Your task to perform on an android device: Open battery settings Image 0: 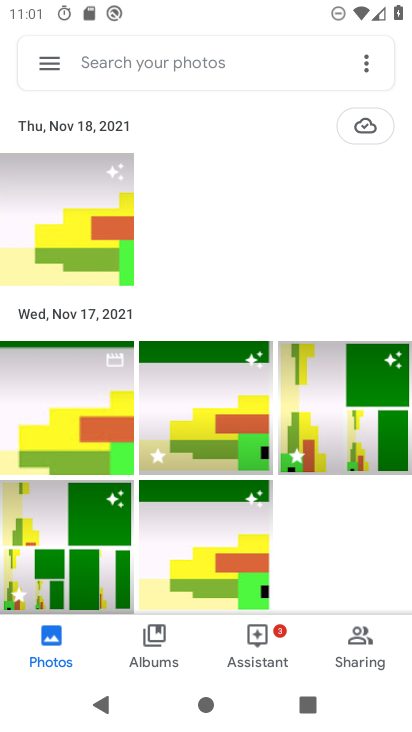
Step 0: press home button
Your task to perform on an android device: Open battery settings Image 1: 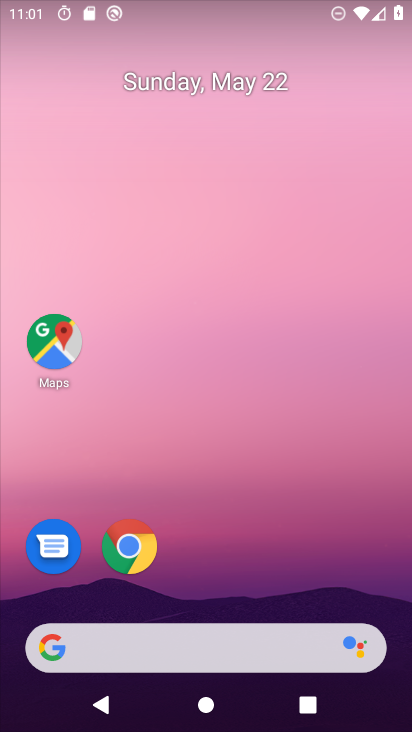
Step 1: click (118, 333)
Your task to perform on an android device: Open battery settings Image 2: 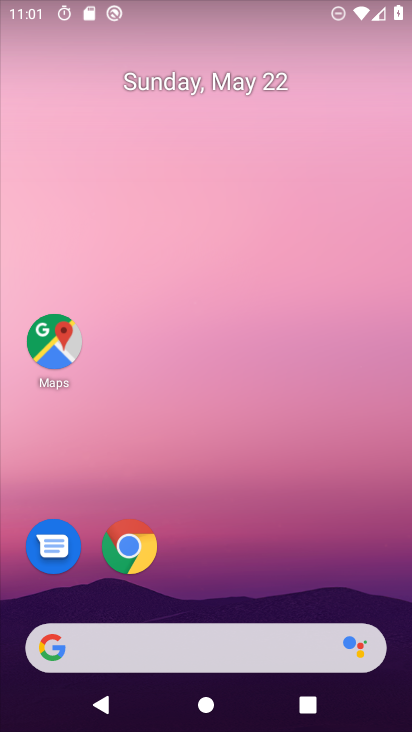
Step 2: drag from (208, 599) to (308, 9)
Your task to perform on an android device: Open battery settings Image 3: 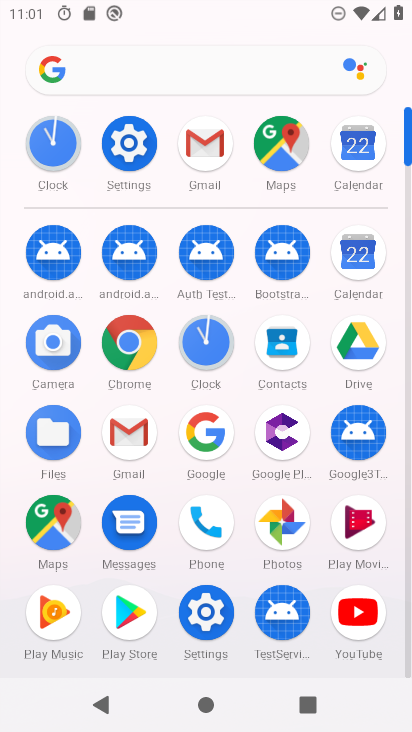
Step 3: click (126, 168)
Your task to perform on an android device: Open battery settings Image 4: 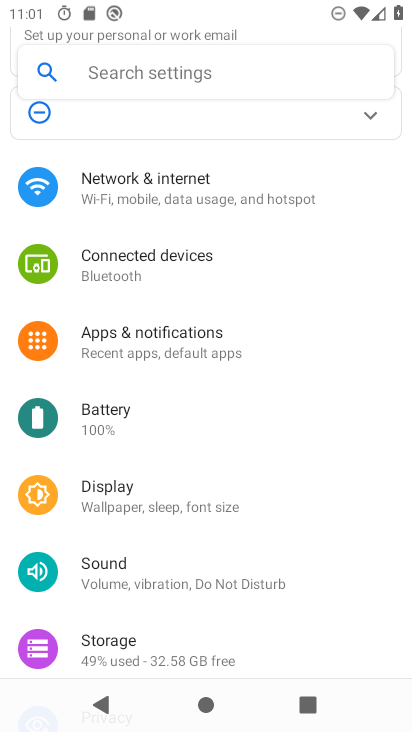
Step 4: click (120, 432)
Your task to perform on an android device: Open battery settings Image 5: 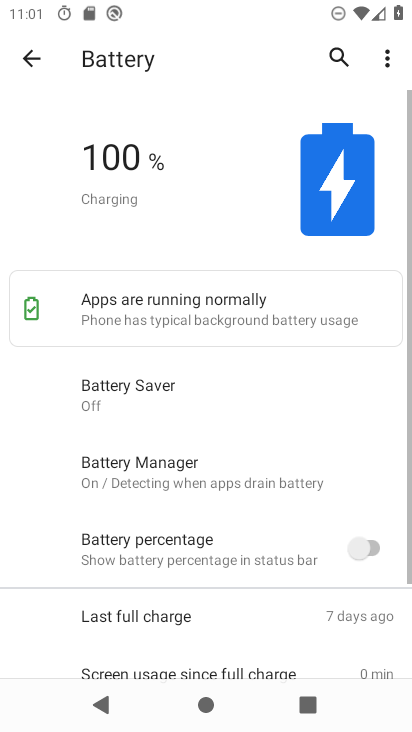
Step 5: task complete